Your task to perform on an android device: Go to eBay Image 0: 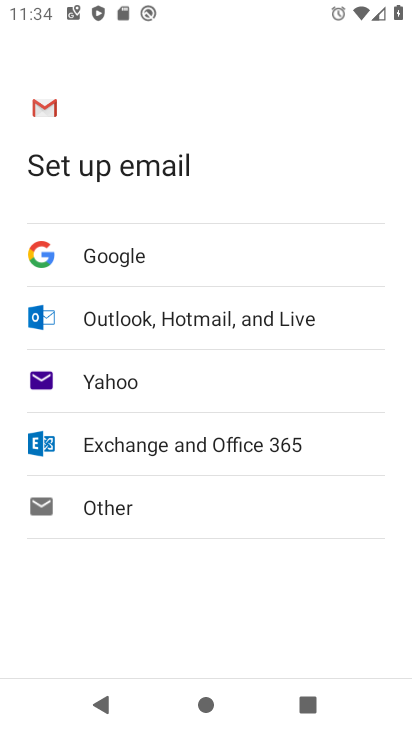
Step 0: press home button
Your task to perform on an android device: Go to eBay Image 1: 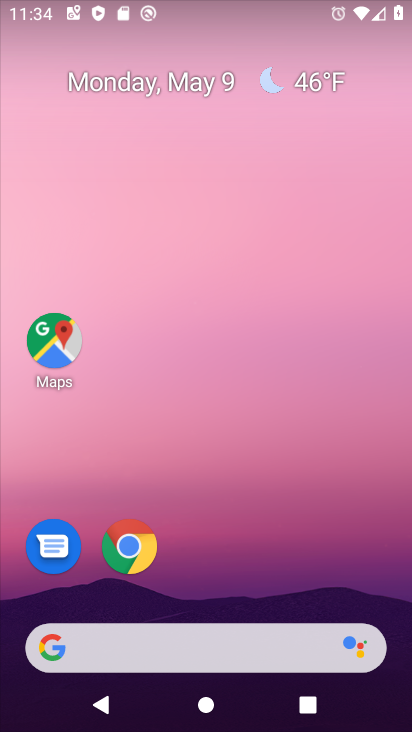
Step 1: click (145, 554)
Your task to perform on an android device: Go to eBay Image 2: 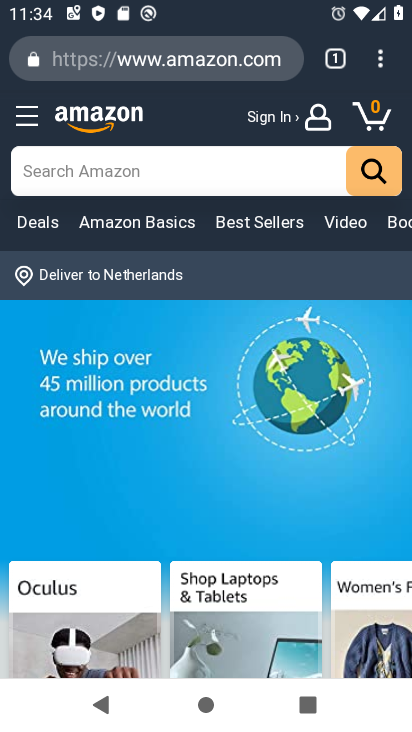
Step 2: click (160, 69)
Your task to perform on an android device: Go to eBay Image 3: 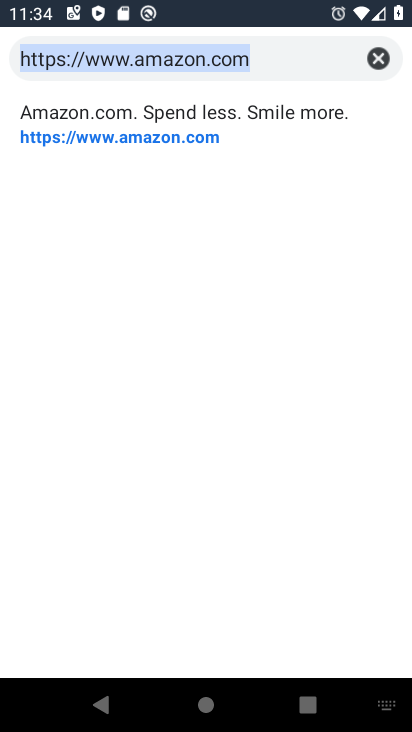
Step 3: click (387, 60)
Your task to perform on an android device: Go to eBay Image 4: 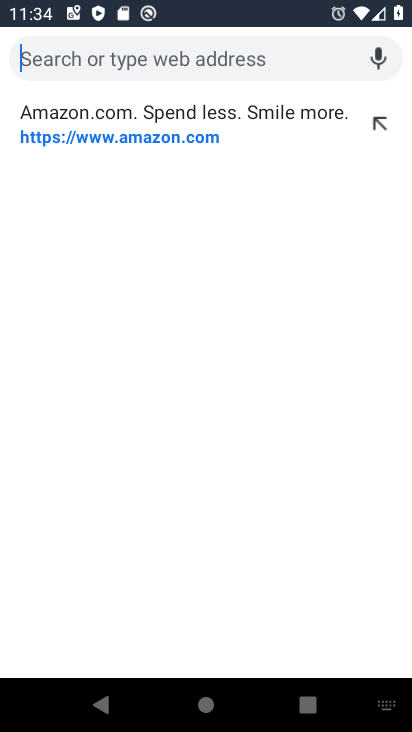
Step 4: type "ebay"
Your task to perform on an android device: Go to eBay Image 5: 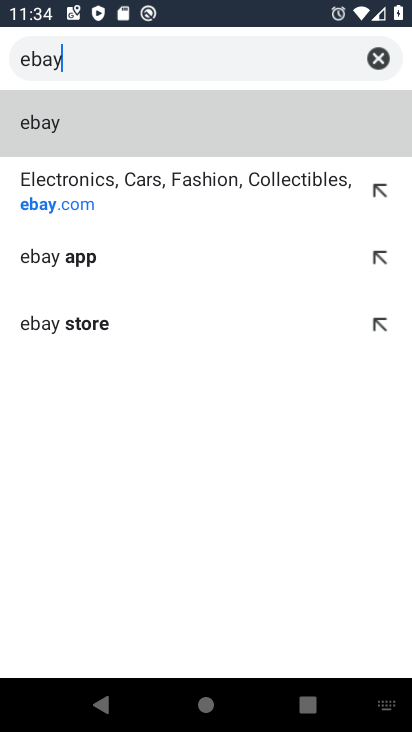
Step 5: click (52, 128)
Your task to perform on an android device: Go to eBay Image 6: 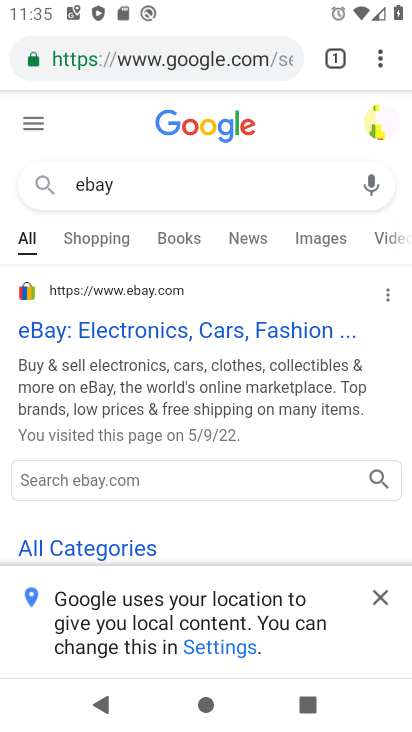
Step 6: click (42, 329)
Your task to perform on an android device: Go to eBay Image 7: 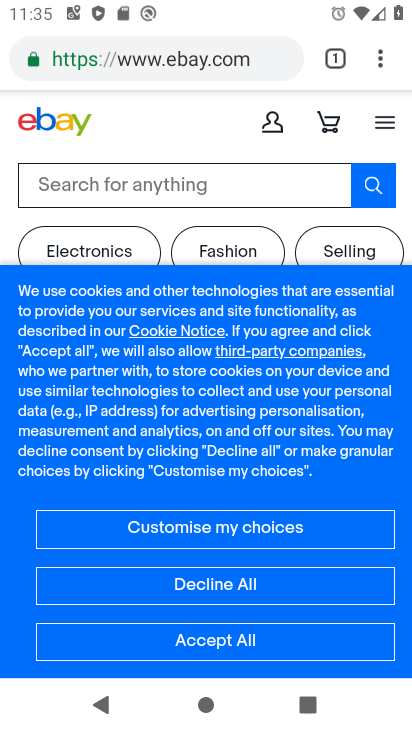
Step 7: task complete